Your task to perform on an android device: Search for floor lamps on article.com Image 0: 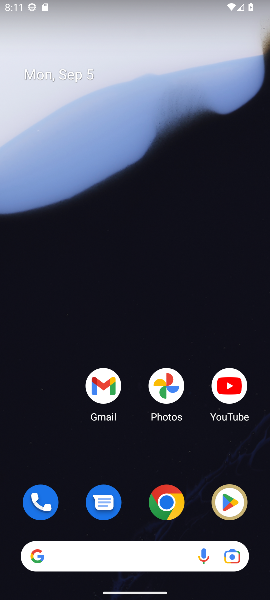
Step 0: drag from (199, 478) to (128, 6)
Your task to perform on an android device: Search for floor lamps on article.com Image 1: 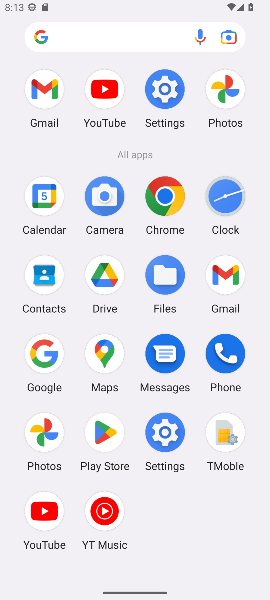
Step 1: click (45, 353)
Your task to perform on an android device: Search for floor lamps on article.com Image 2: 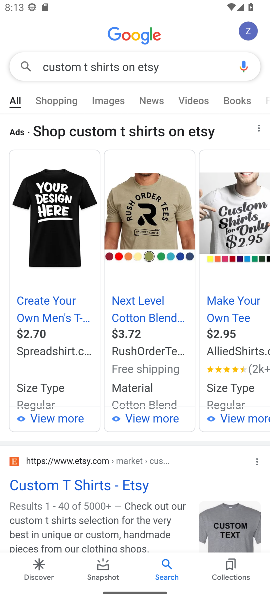
Step 2: press back button
Your task to perform on an android device: Search for floor lamps on article.com Image 3: 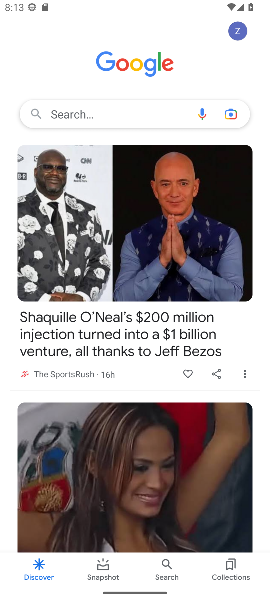
Step 3: click (65, 114)
Your task to perform on an android device: Search for floor lamps on article.com Image 4: 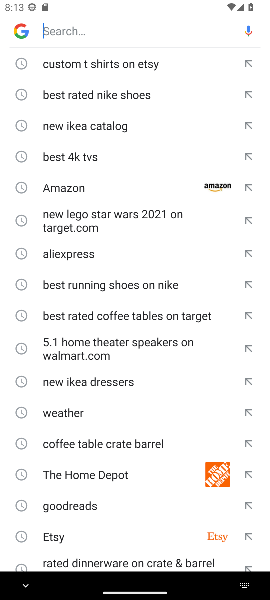
Step 4: type "floor lamps on article.com"
Your task to perform on an android device: Search for floor lamps on article.com Image 5: 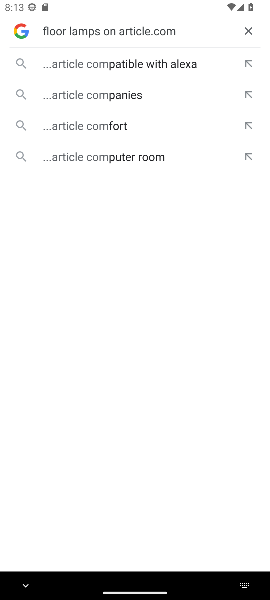
Step 5: click (90, 77)
Your task to perform on an android device: Search for floor lamps on article.com Image 6: 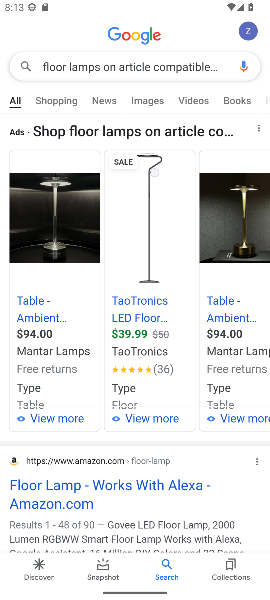
Step 6: task complete